Your task to perform on an android device: search for starred emails in the gmail app Image 0: 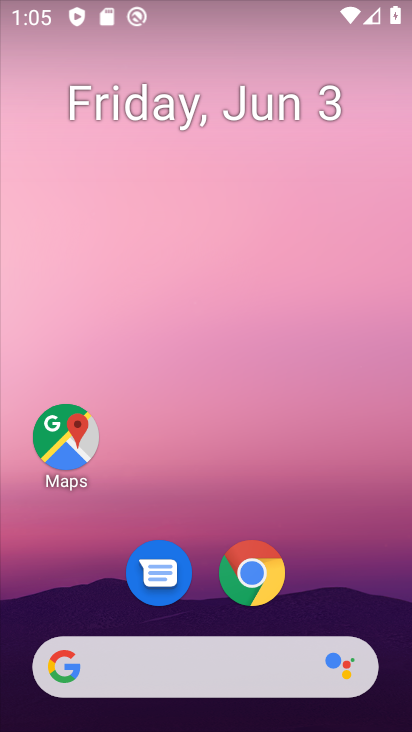
Step 0: task complete